Your task to perform on an android device: turn on javascript in the chrome app Image 0: 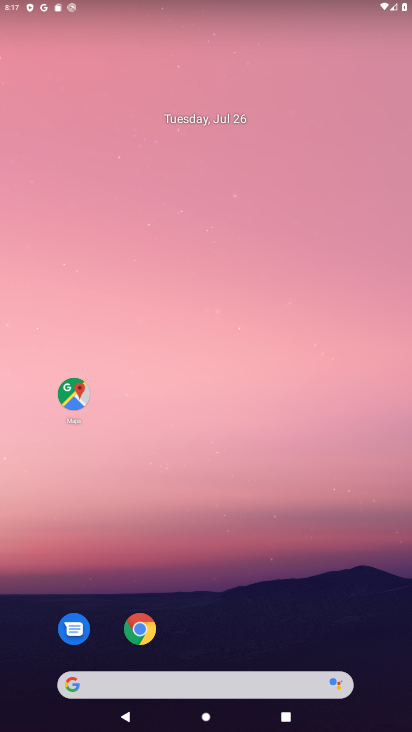
Step 0: press home button
Your task to perform on an android device: turn on javascript in the chrome app Image 1: 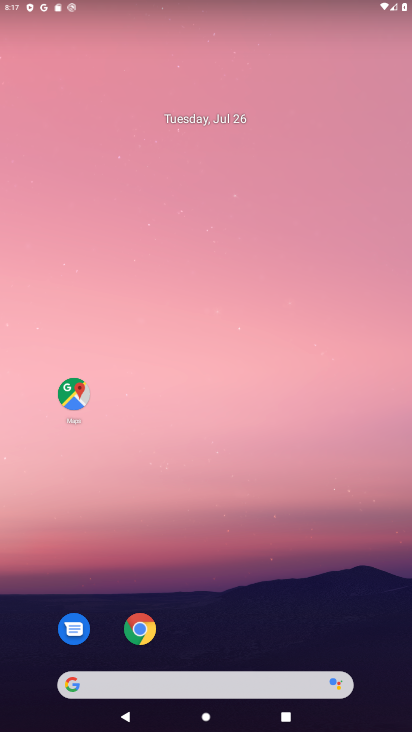
Step 1: drag from (328, 593) to (305, 56)
Your task to perform on an android device: turn on javascript in the chrome app Image 2: 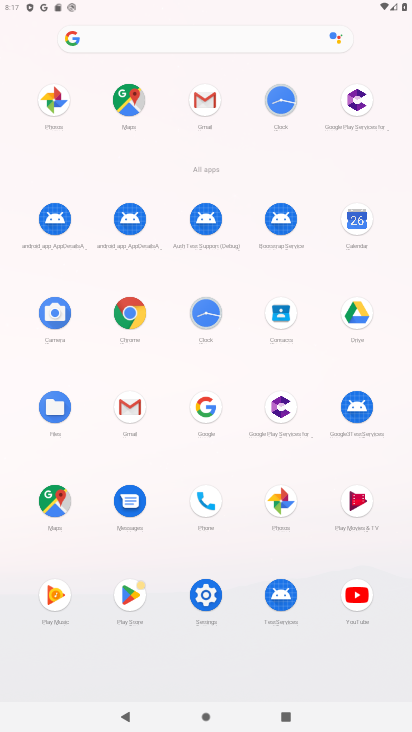
Step 2: click (130, 311)
Your task to perform on an android device: turn on javascript in the chrome app Image 3: 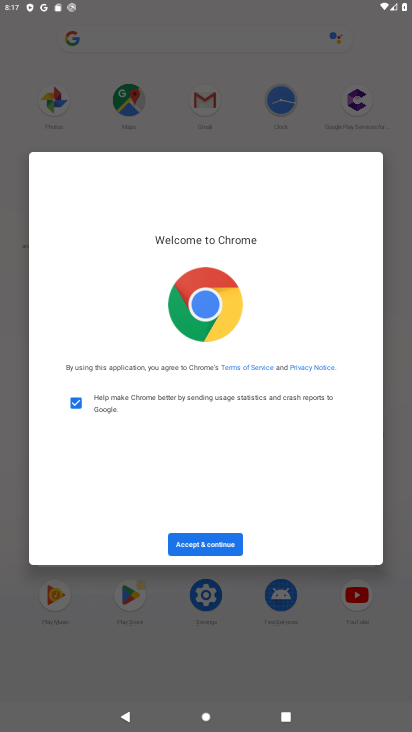
Step 3: click (212, 551)
Your task to perform on an android device: turn on javascript in the chrome app Image 4: 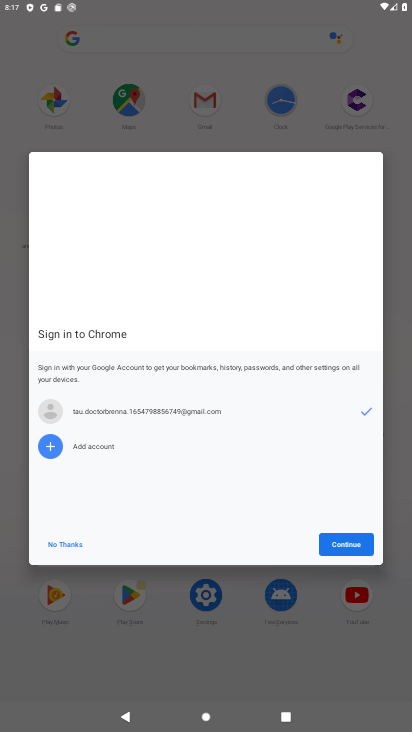
Step 4: click (370, 555)
Your task to perform on an android device: turn on javascript in the chrome app Image 5: 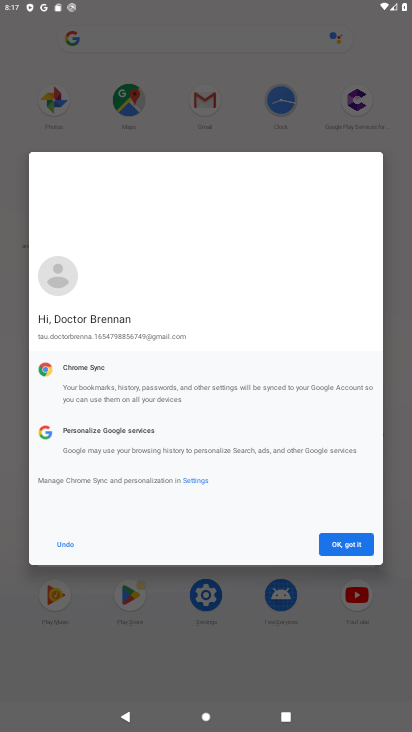
Step 5: click (370, 555)
Your task to perform on an android device: turn on javascript in the chrome app Image 6: 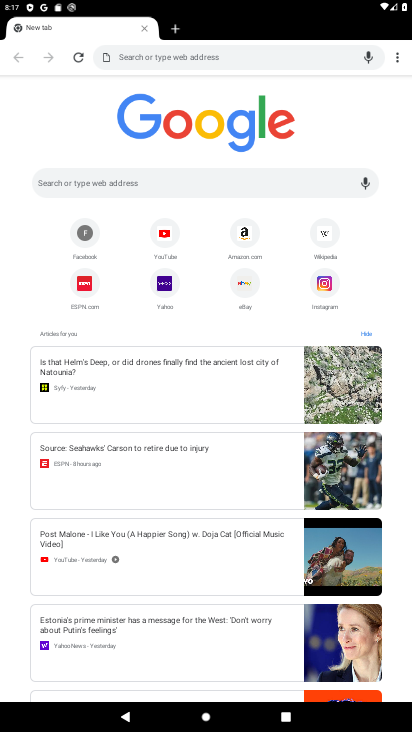
Step 6: drag from (403, 55) to (268, 259)
Your task to perform on an android device: turn on javascript in the chrome app Image 7: 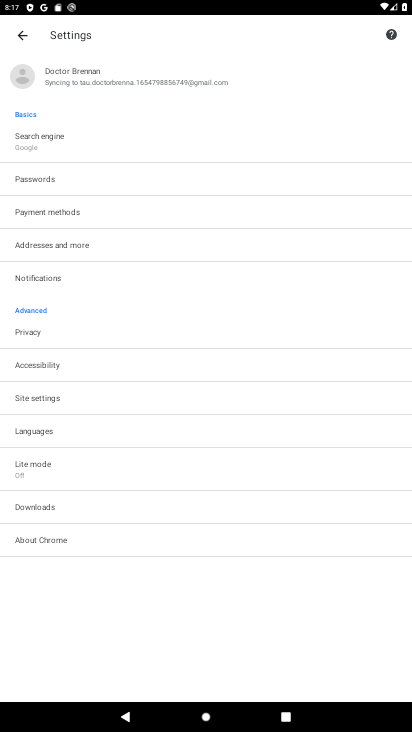
Step 7: click (88, 394)
Your task to perform on an android device: turn on javascript in the chrome app Image 8: 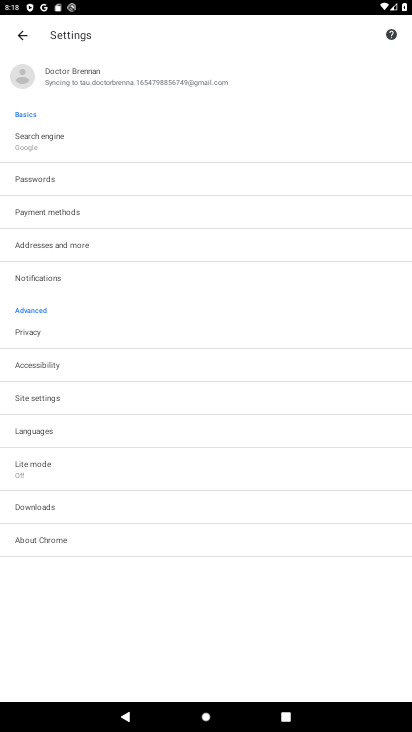
Step 8: click (100, 388)
Your task to perform on an android device: turn on javascript in the chrome app Image 9: 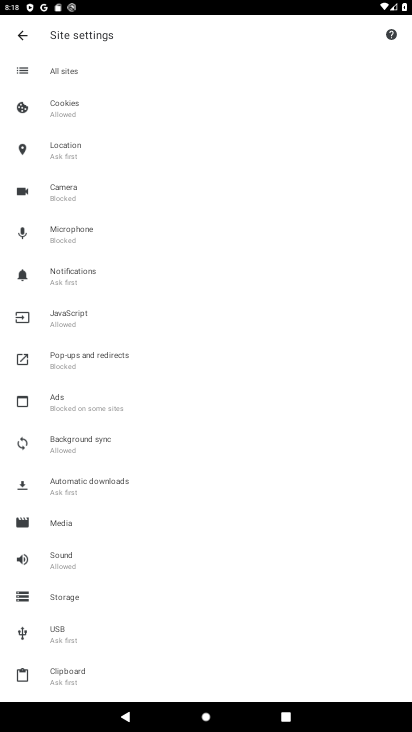
Step 9: click (61, 328)
Your task to perform on an android device: turn on javascript in the chrome app Image 10: 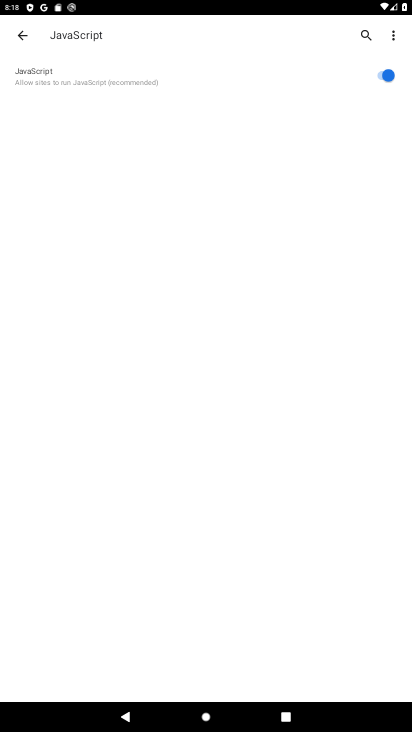
Step 10: task complete